Your task to perform on an android device: Open calendar and show me the third week of next month Image 0: 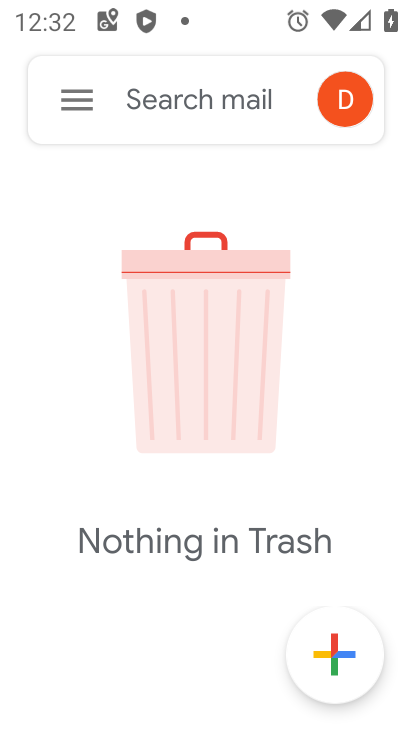
Step 0: press home button
Your task to perform on an android device: Open calendar and show me the third week of next month Image 1: 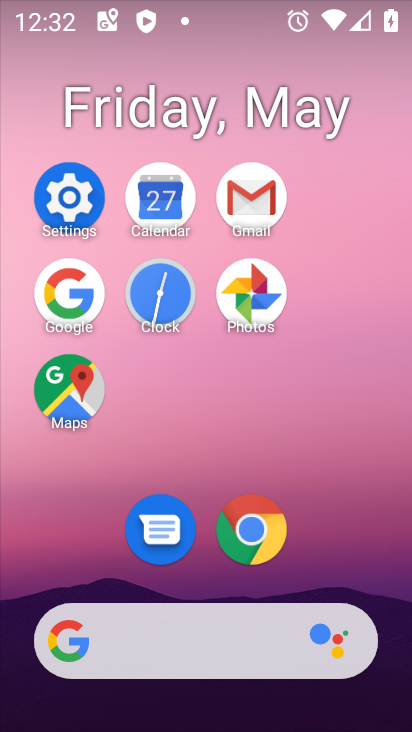
Step 1: click (157, 217)
Your task to perform on an android device: Open calendar and show me the third week of next month Image 2: 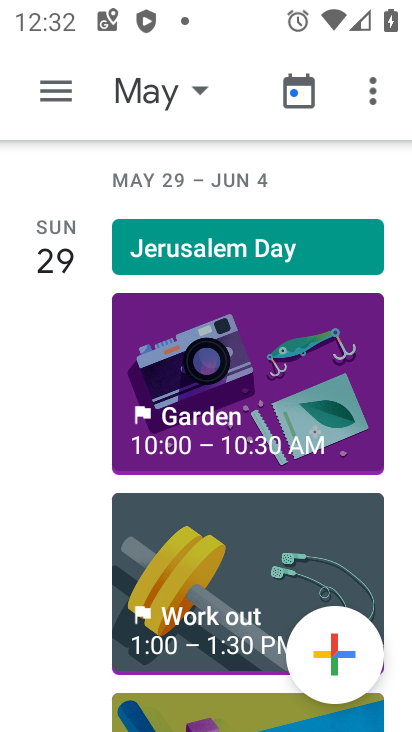
Step 2: click (155, 82)
Your task to perform on an android device: Open calendar and show me the third week of next month Image 3: 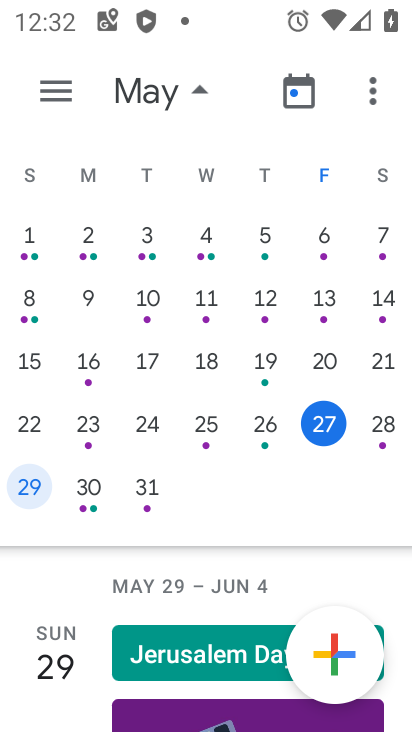
Step 3: drag from (393, 279) to (2, 175)
Your task to perform on an android device: Open calendar and show me the third week of next month Image 4: 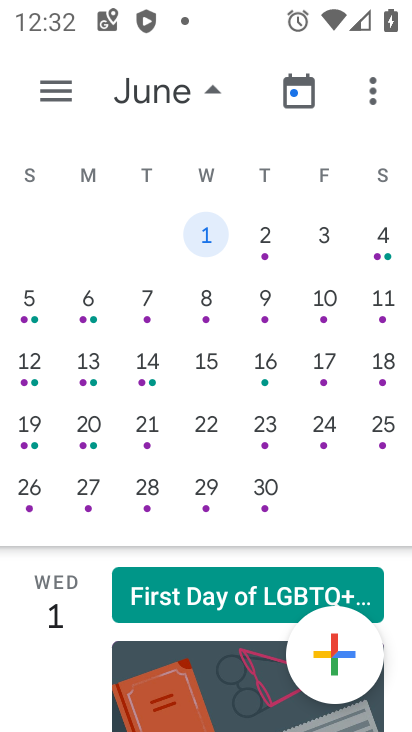
Step 4: click (38, 96)
Your task to perform on an android device: Open calendar and show me the third week of next month Image 5: 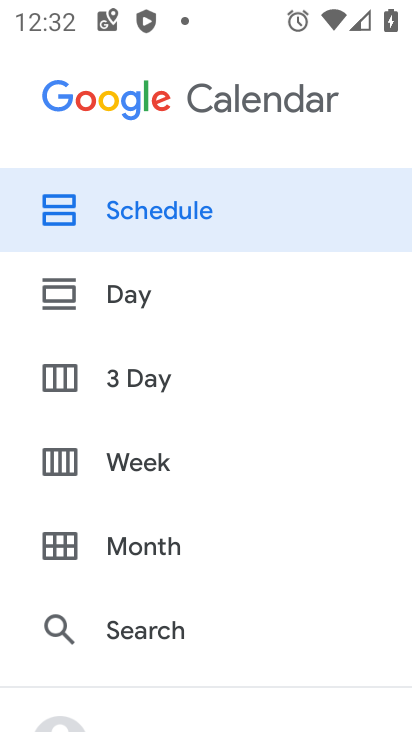
Step 5: click (167, 459)
Your task to perform on an android device: Open calendar and show me the third week of next month Image 6: 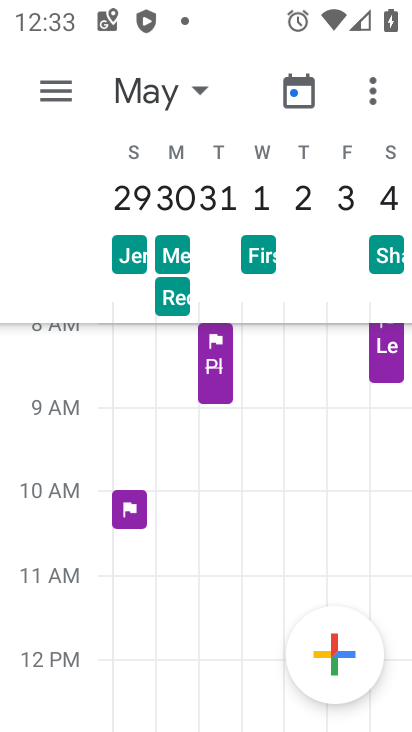
Step 6: task complete